Your task to perform on an android device: Open Google Image 0: 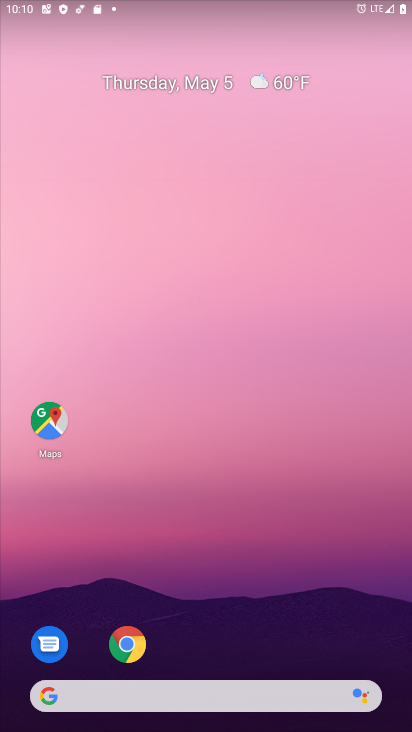
Step 0: drag from (207, 587) to (258, 185)
Your task to perform on an android device: Open Google Image 1: 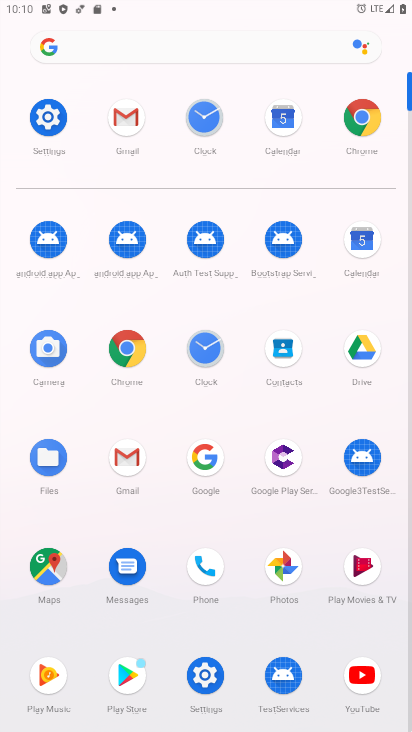
Step 1: click (205, 458)
Your task to perform on an android device: Open Google Image 2: 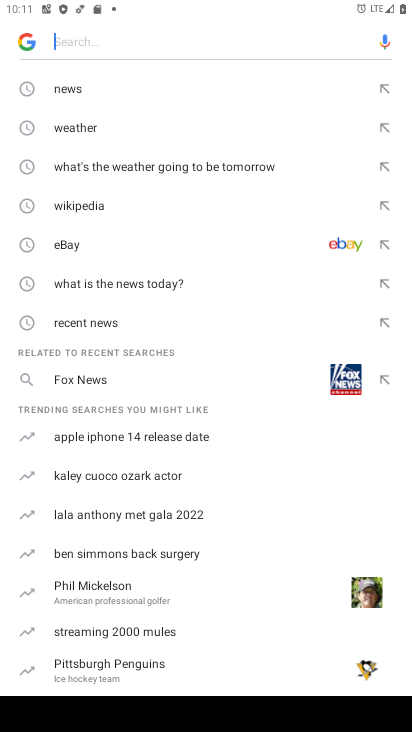
Step 2: task complete